Your task to perform on an android device: What's the latest video from Gameranx? Image 0: 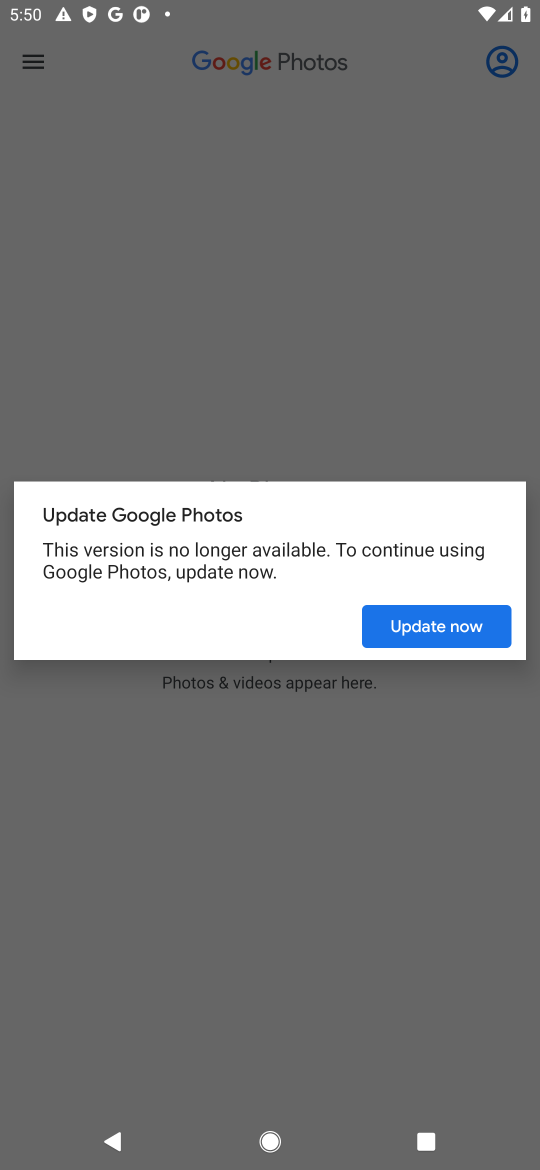
Step 0: press home button
Your task to perform on an android device: What's the latest video from Gameranx? Image 1: 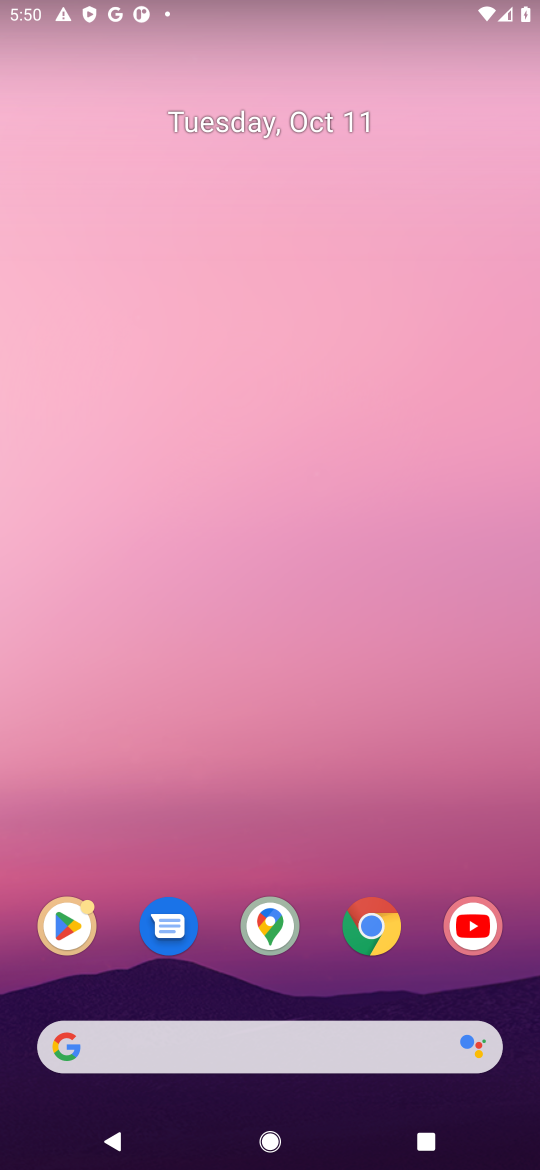
Step 1: click (258, 1060)
Your task to perform on an android device: What's the latest video from Gameranx? Image 2: 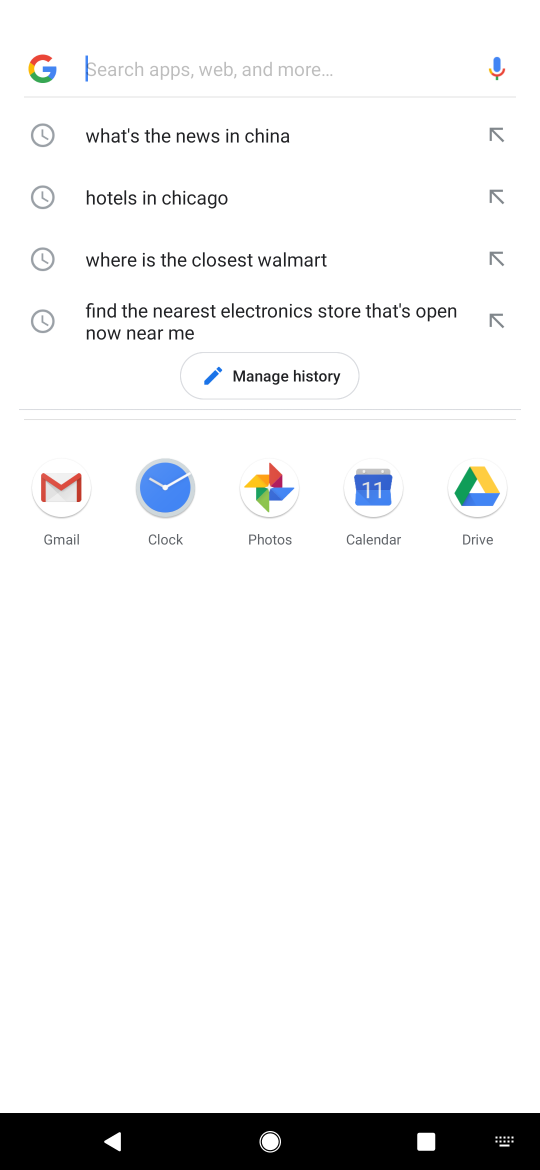
Step 2: type "whats the latest  video from gameranx"
Your task to perform on an android device: What's the latest video from Gameranx? Image 3: 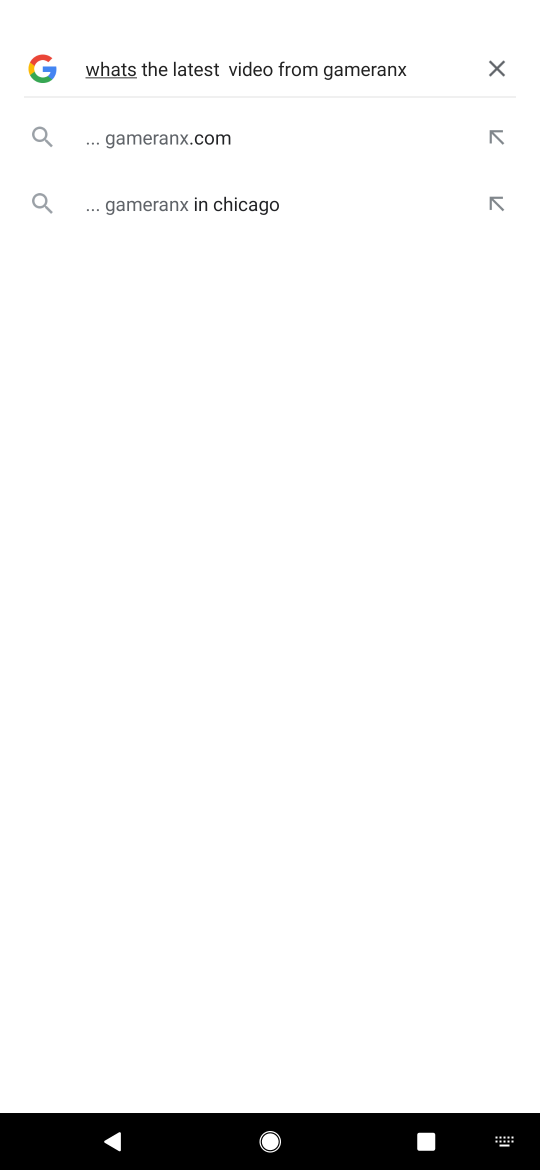
Step 3: click (249, 139)
Your task to perform on an android device: What's the latest video from Gameranx? Image 4: 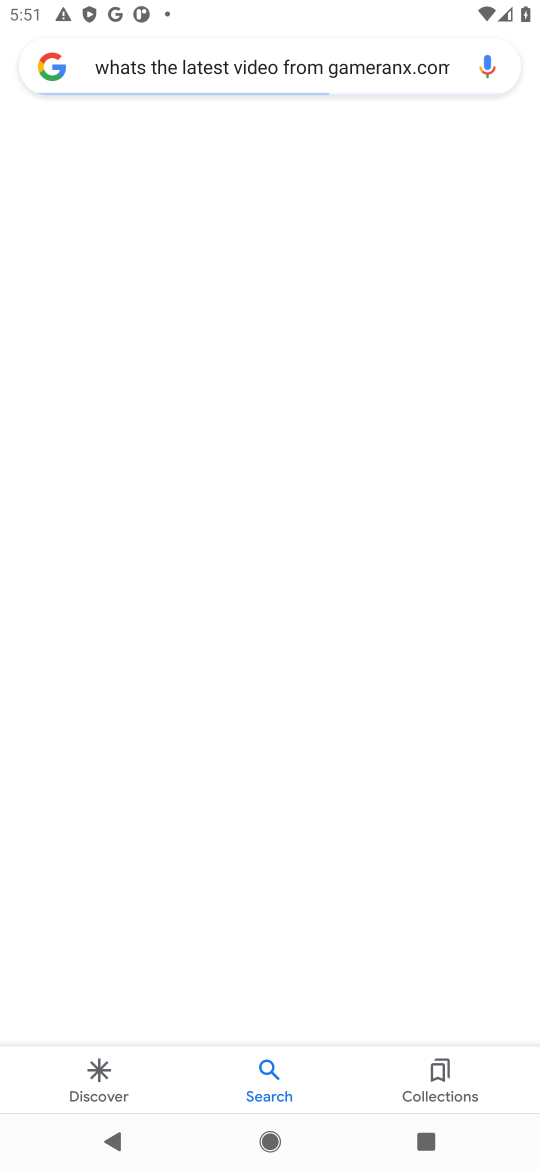
Step 4: click (237, 143)
Your task to perform on an android device: What's the latest video from Gameranx? Image 5: 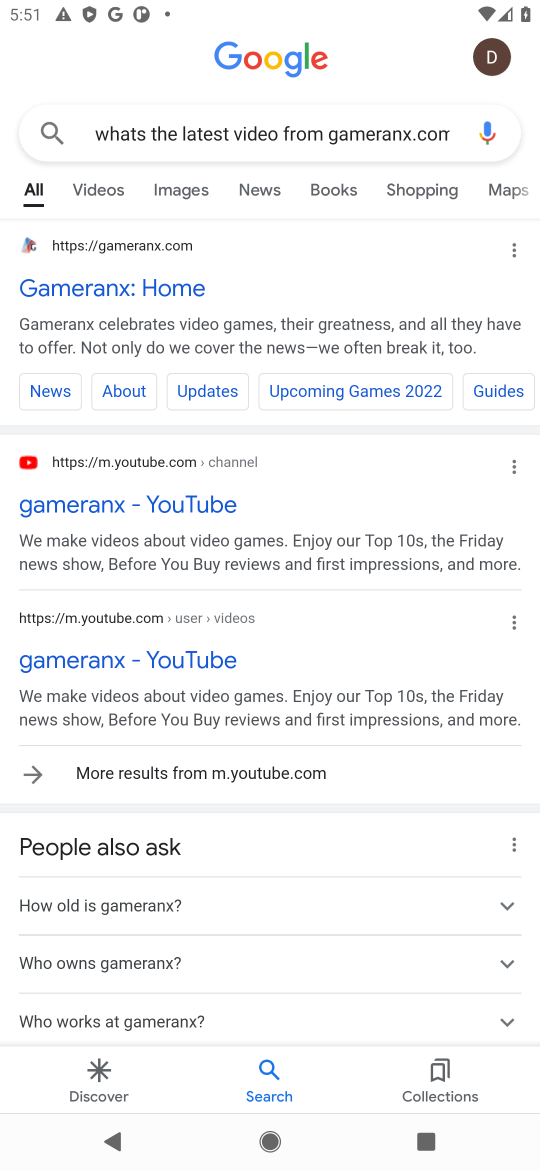
Step 5: click (110, 492)
Your task to perform on an android device: What's the latest video from Gameranx? Image 6: 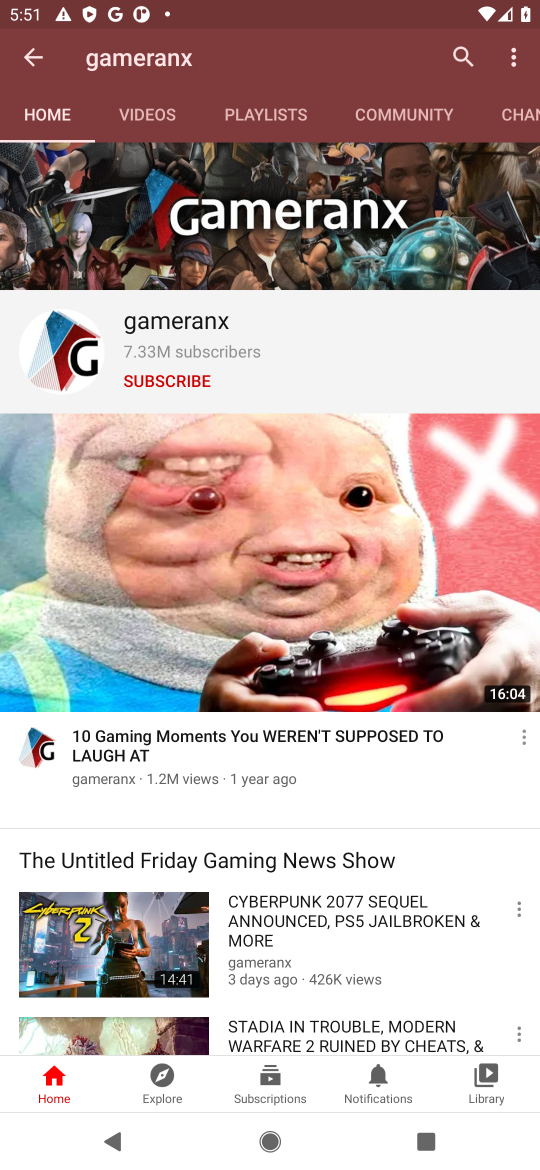
Step 6: task complete